Your task to perform on an android device: turn smart compose on in the gmail app Image 0: 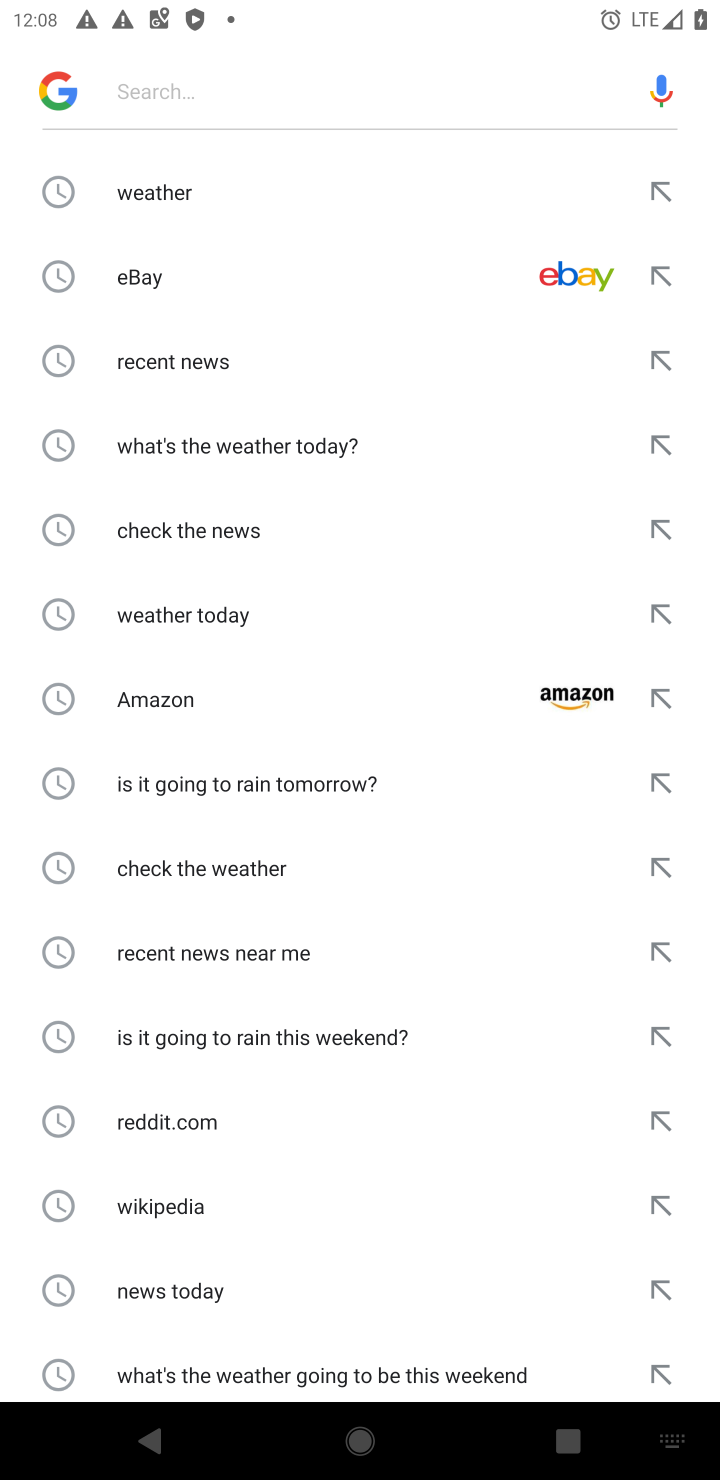
Step 0: press home button
Your task to perform on an android device: turn smart compose on in the gmail app Image 1: 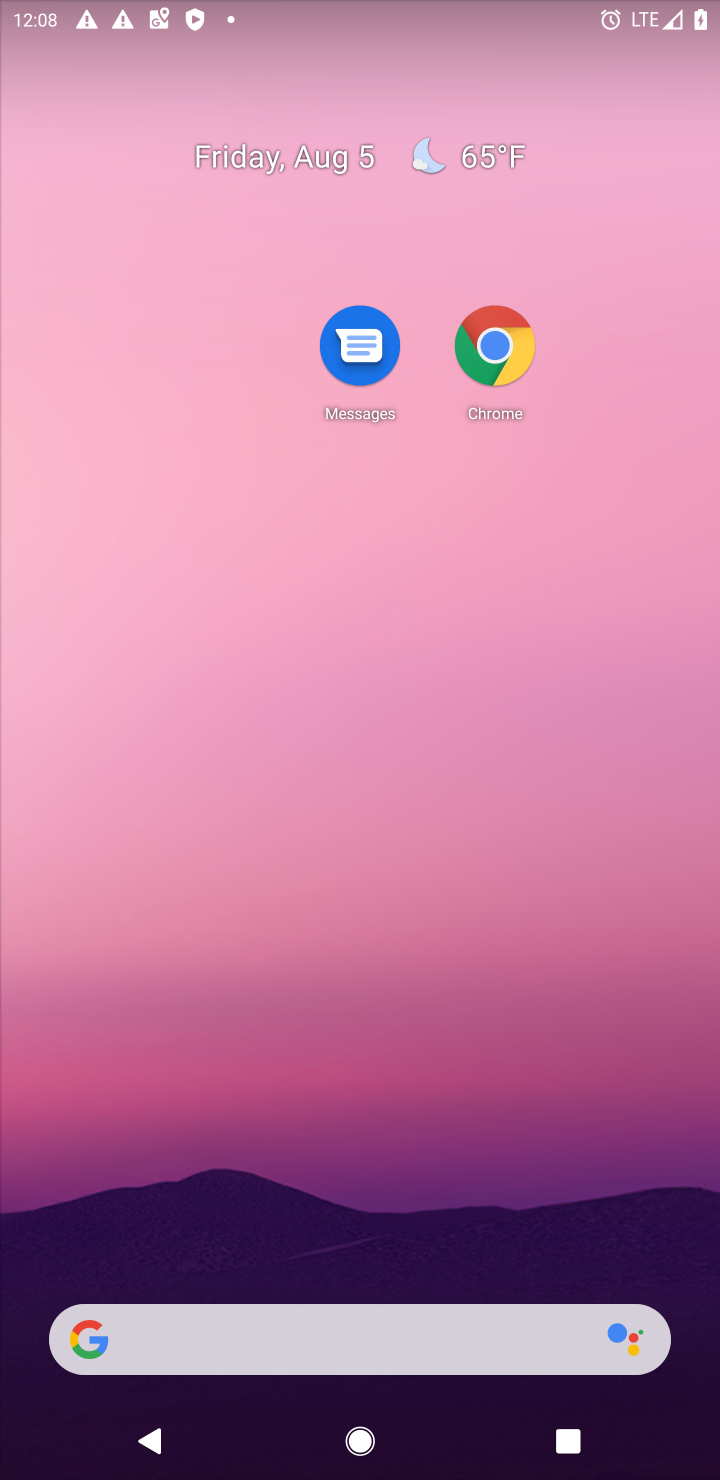
Step 1: drag from (255, 984) to (122, 7)
Your task to perform on an android device: turn smart compose on in the gmail app Image 2: 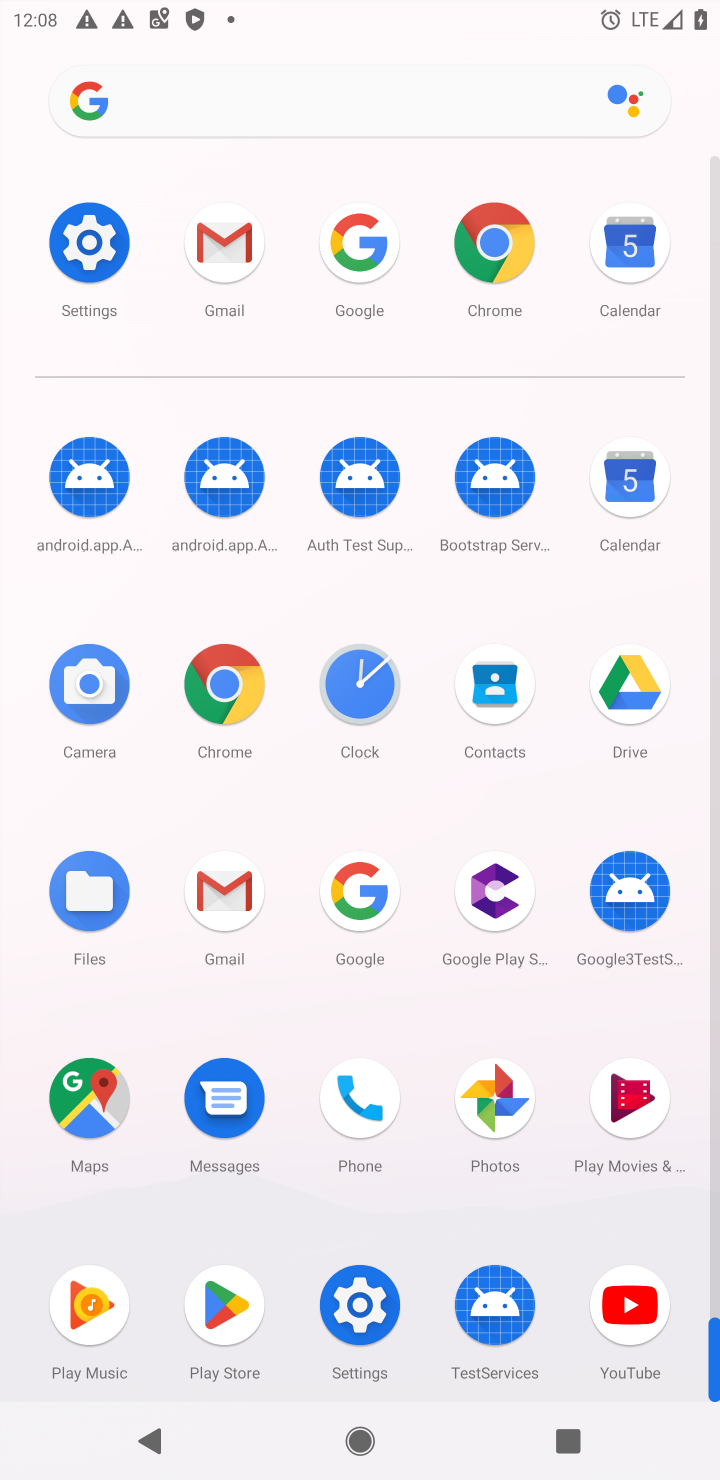
Step 2: click (239, 230)
Your task to perform on an android device: turn smart compose on in the gmail app Image 3: 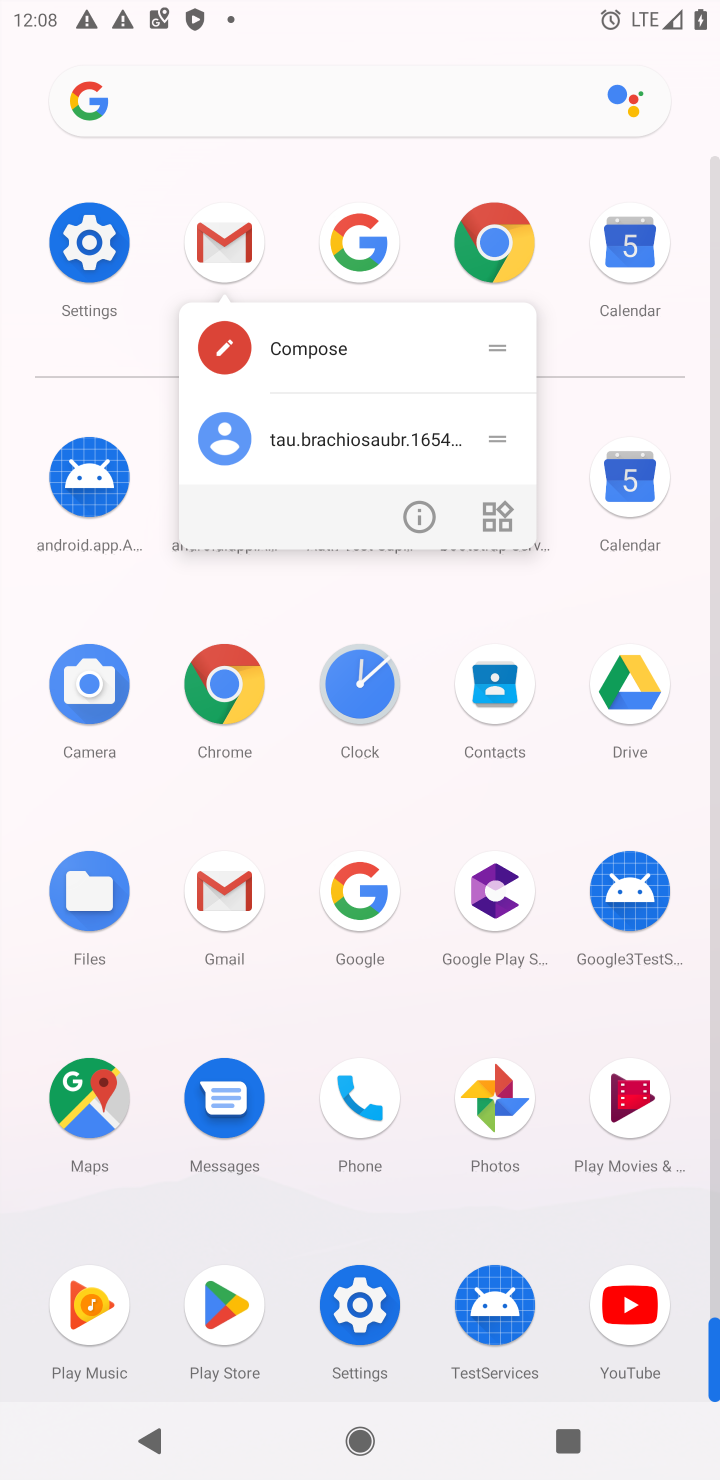
Step 3: click (239, 228)
Your task to perform on an android device: turn smart compose on in the gmail app Image 4: 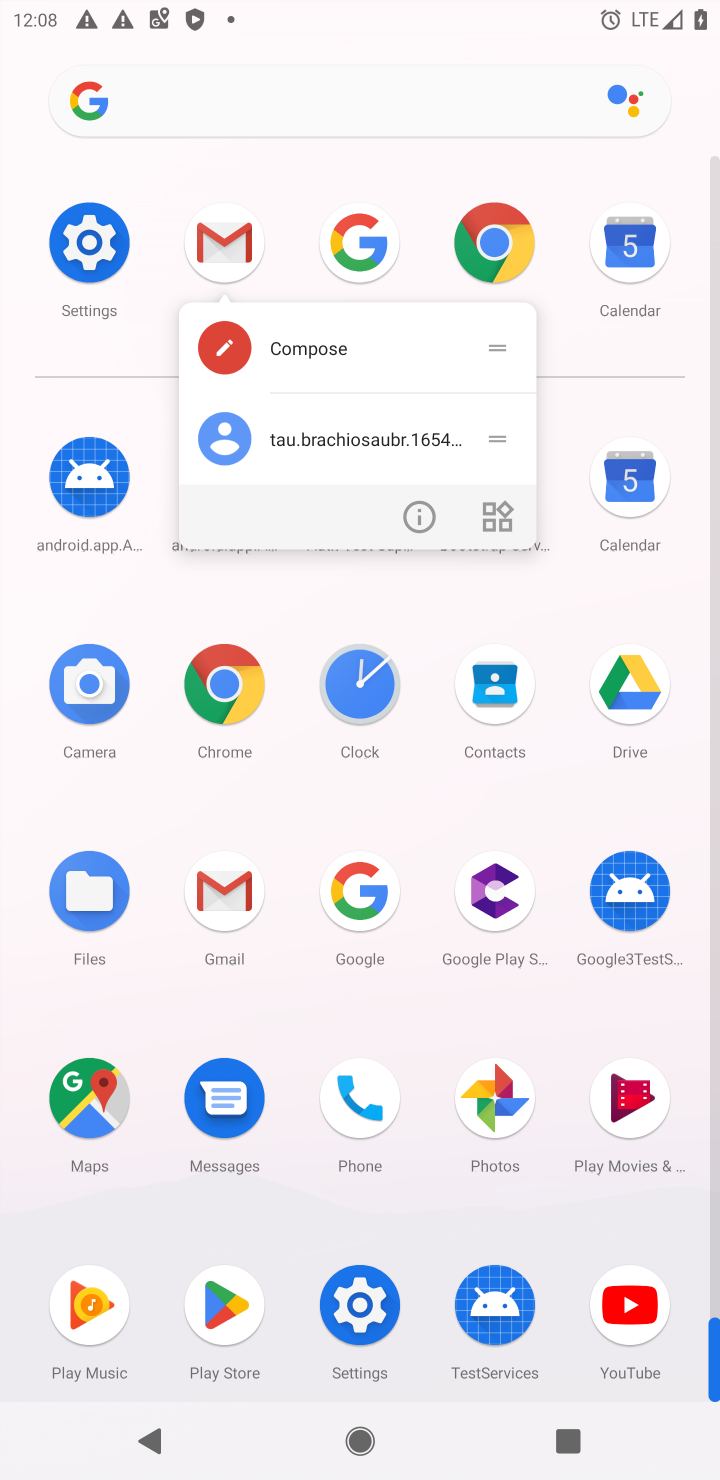
Step 4: click (222, 241)
Your task to perform on an android device: turn smart compose on in the gmail app Image 5: 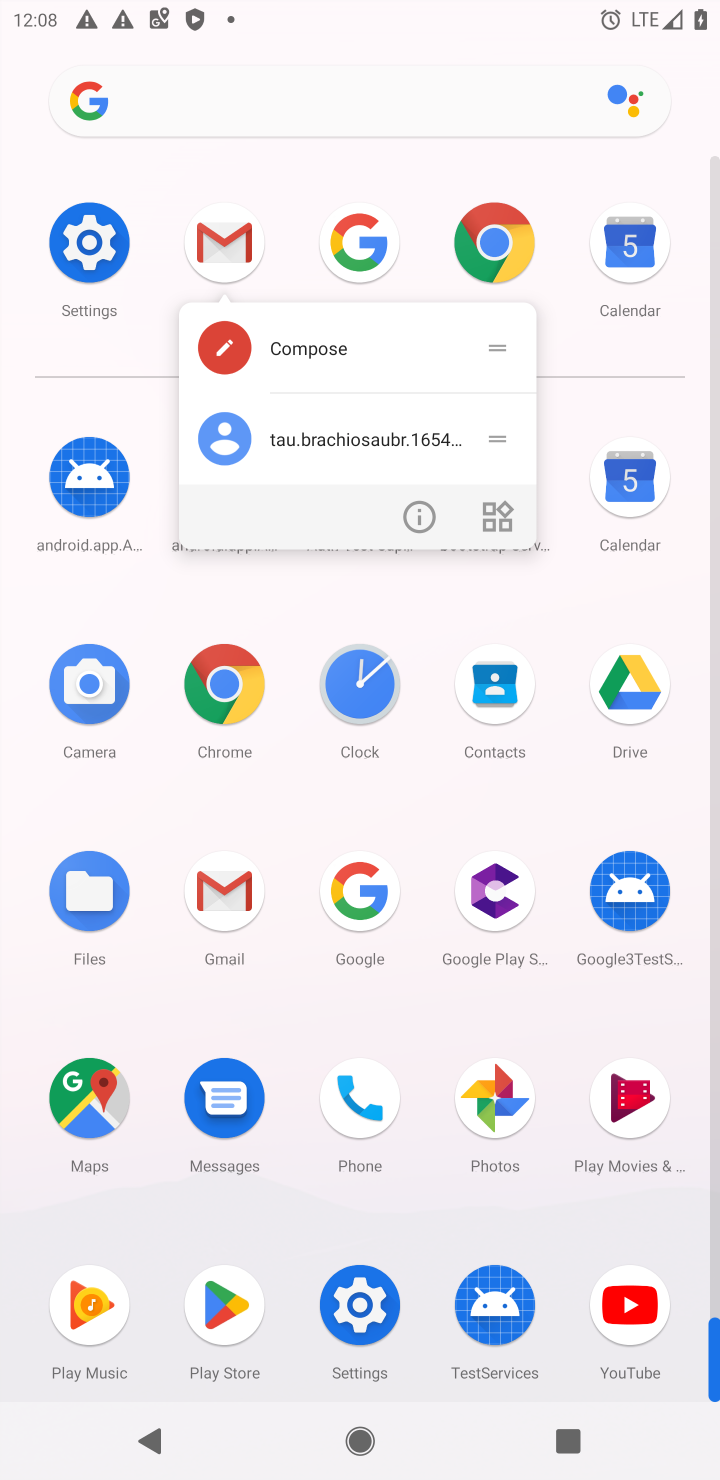
Step 5: click (222, 237)
Your task to perform on an android device: turn smart compose on in the gmail app Image 6: 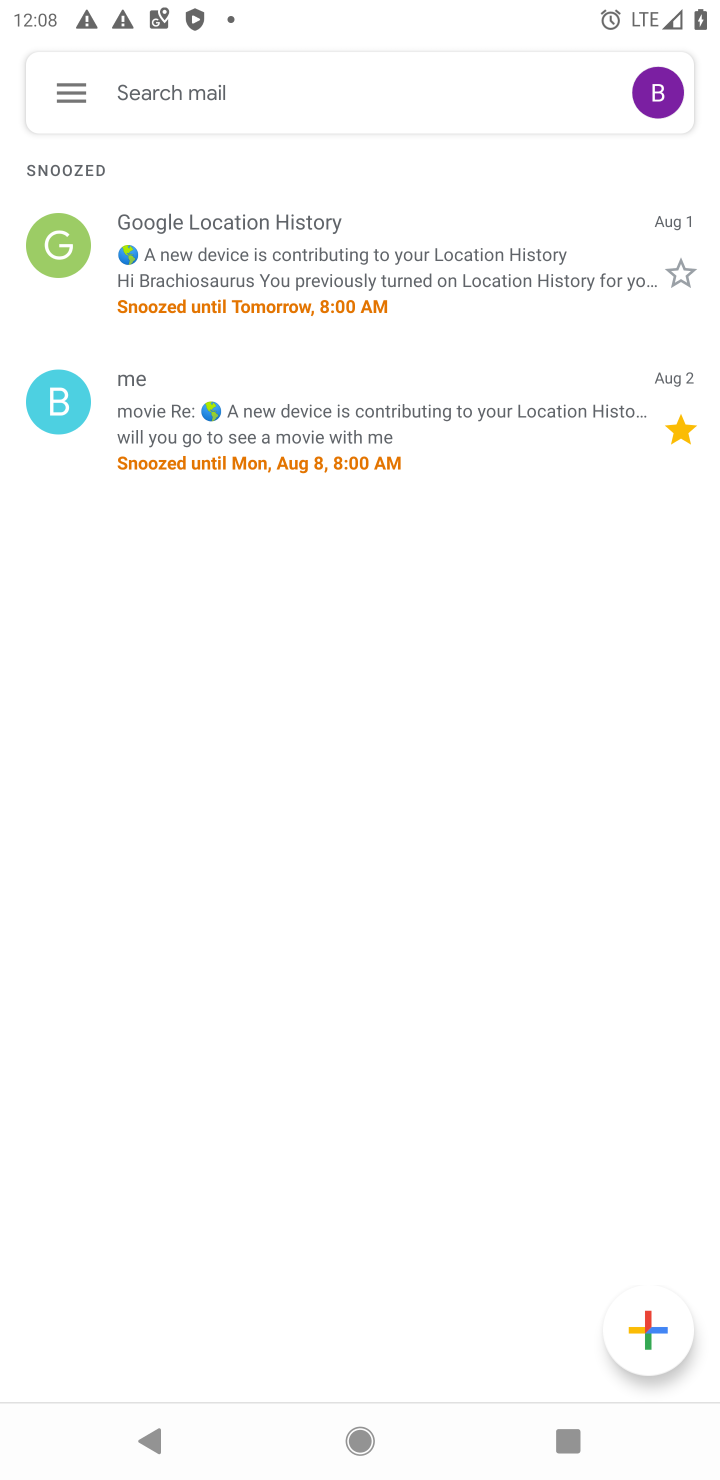
Step 6: click (84, 98)
Your task to perform on an android device: turn smart compose on in the gmail app Image 7: 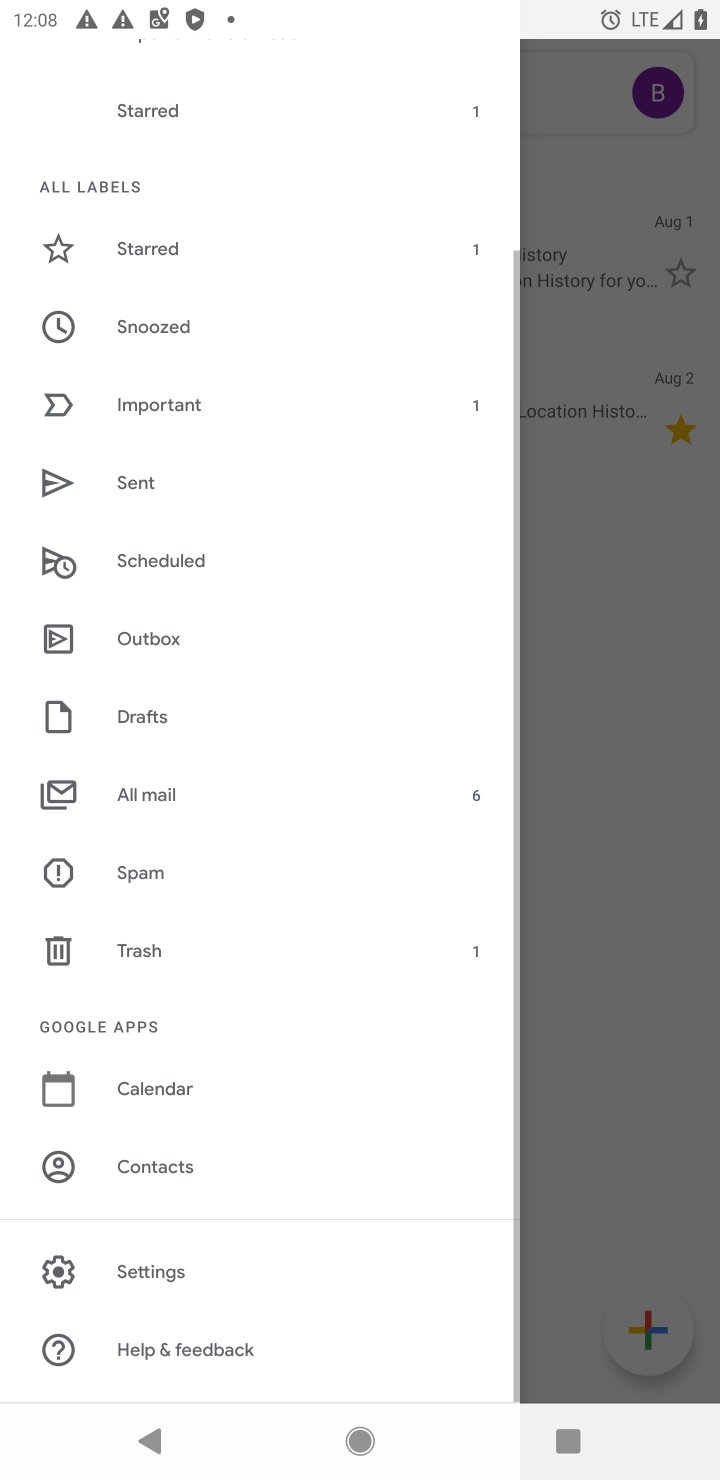
Step 7: drag from (311, 1095) to (375, 248)
Your task to perform on an android device: turn smart compose on in the gmail app Image 8: 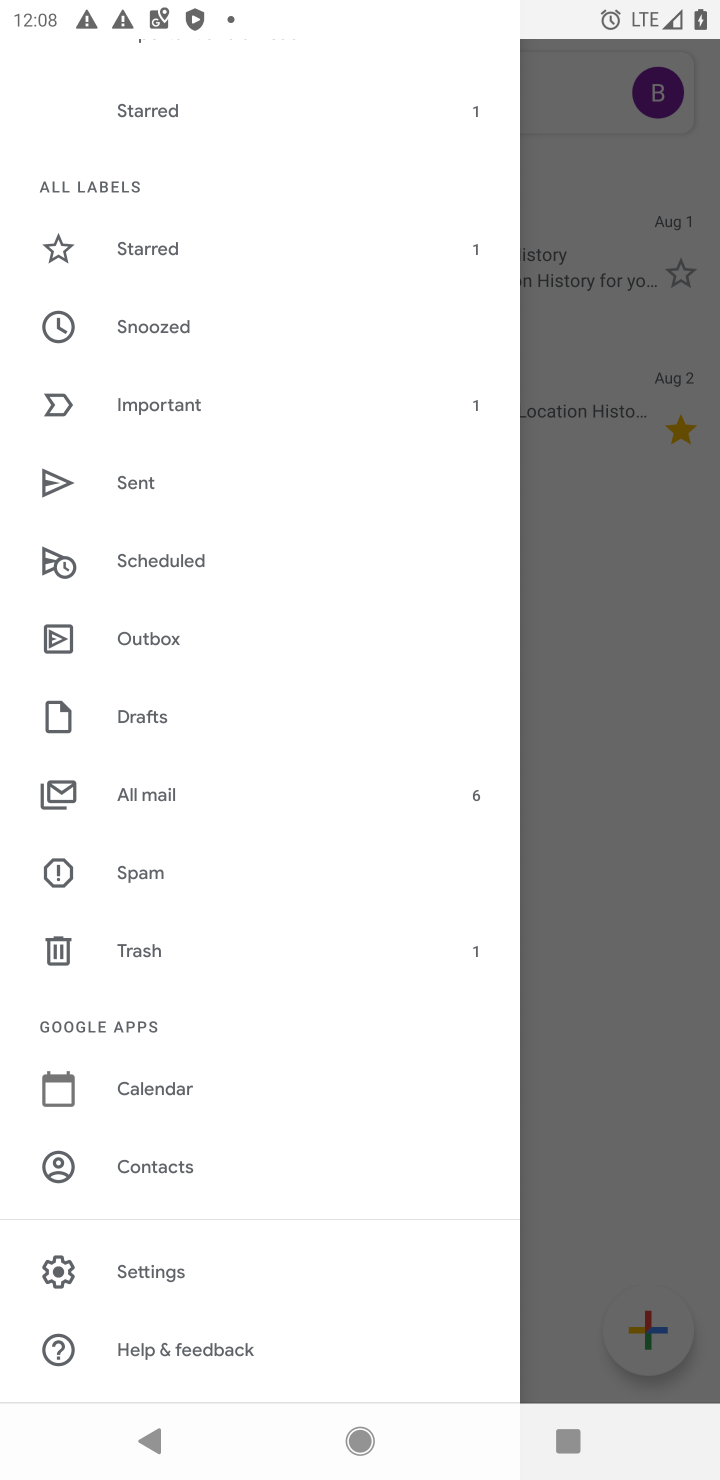
Step 8: drag from (230, 1077) to (133, 221)
Your task to perform on an android device: turn smart compose on in the gmail app Image 9: 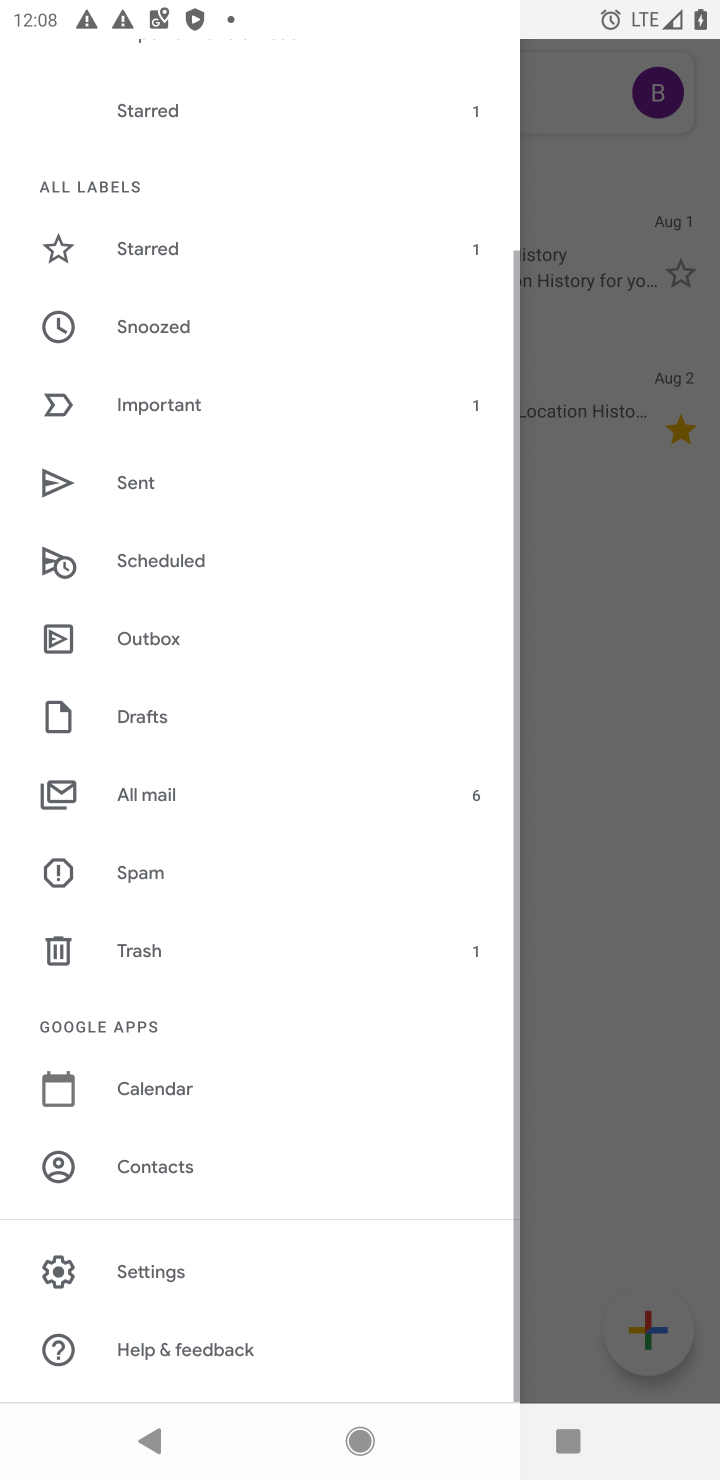
Step 9: click (133, 1273)
Your task to perform on an android device: turn smart compose on in the gmail app Image 10: 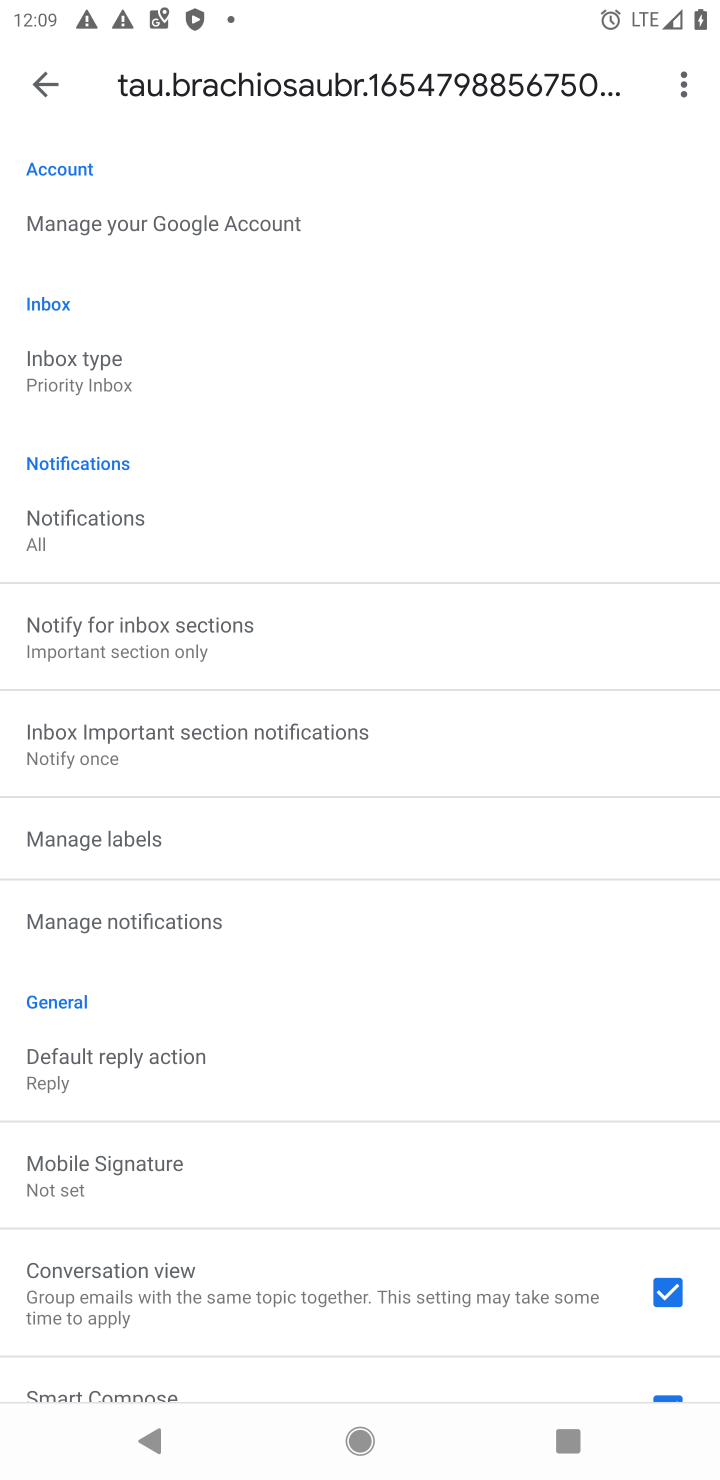
Step 10: task complete